Your task to perform on an android device: move an email to a new category in the gmail app Image 0: 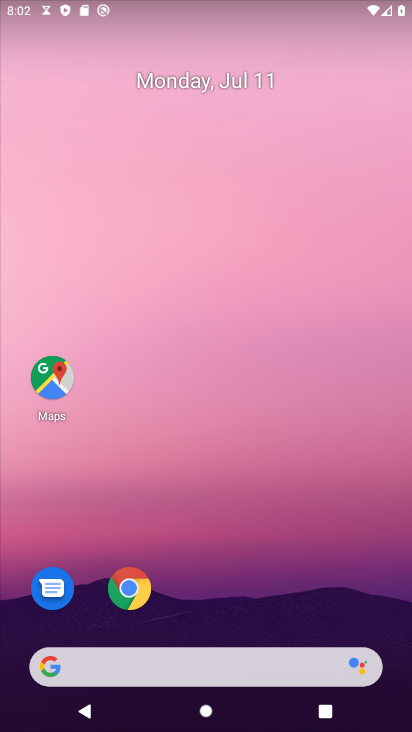
Step 0: drag from (256, 604) to (214, 177)
Your task to perform on an android device: move an email to a new category in the gmail app Image 1: 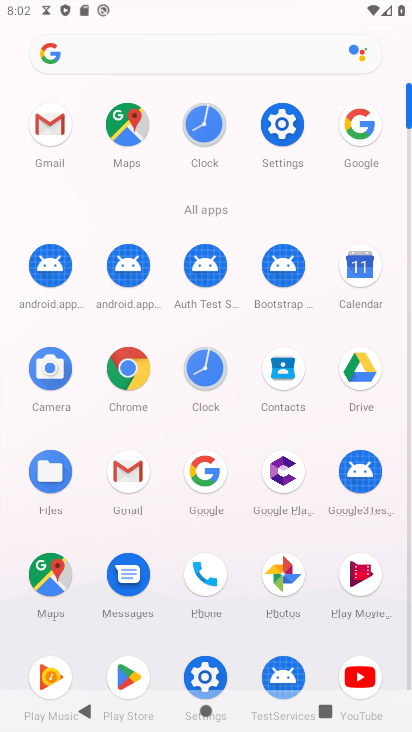
Step 1: click (55, 143)
Your task to perform on an android device: move an email to a new category in the gmail app Image 2: 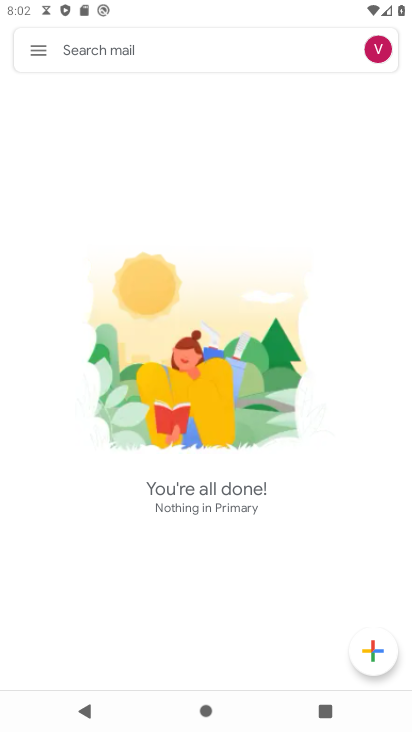
Step 2: click (48, 50)
Your task to perform on an android device: move an email to a new category in the gmail app Image 3: 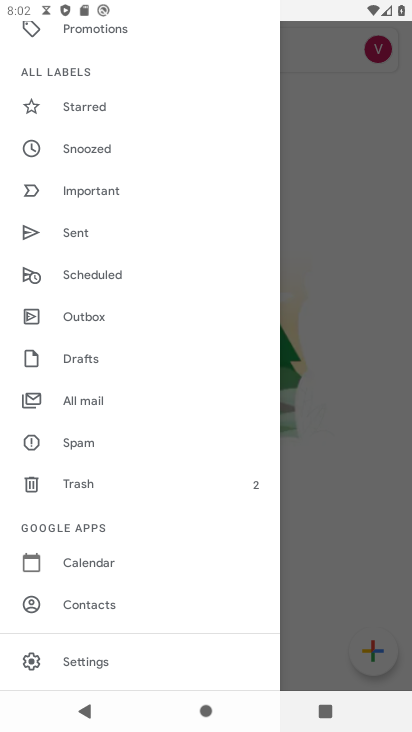
Step 3: click (103, 401)
Your task to perform on an android device: move an email to a new category in the gmail app Image 4: 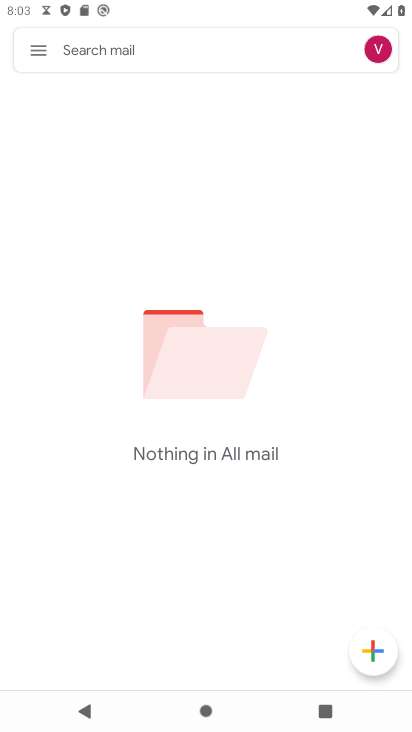
Step 4: task complete